Your task to perform on an android device: turn vacation reply on in the gmail app Image 0: 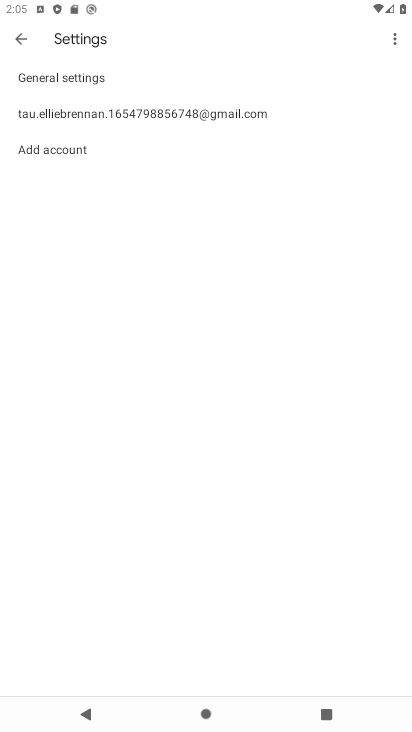
Step 0: press home button
Your task to perform on an android device: turn vacation reply on in the gmail app Image 1: 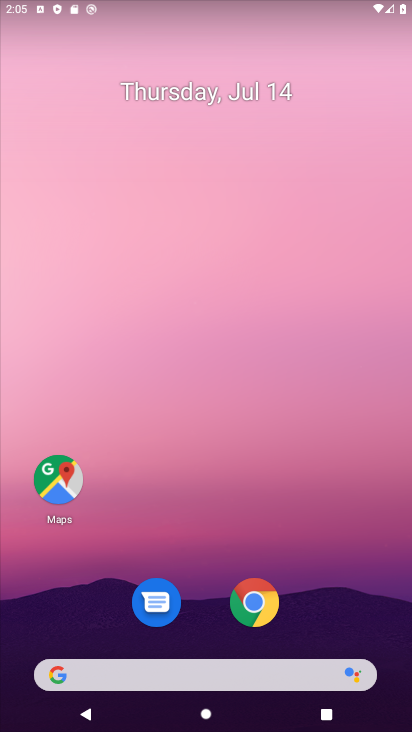
Step 1: drag from (389, 656) to (330, 159)
Your task to perform on an android device: turn vacation reply on in the gmail app Image 2: 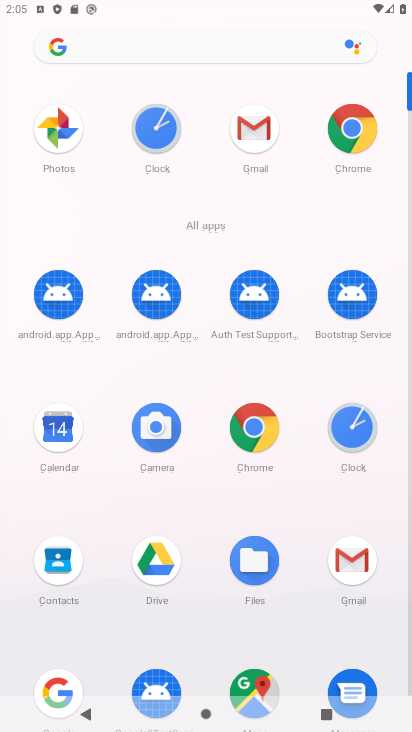
Step 2: click (350, 561)
Your task to perform on an android device: turn vacation reply on in the gmail app Image 3: 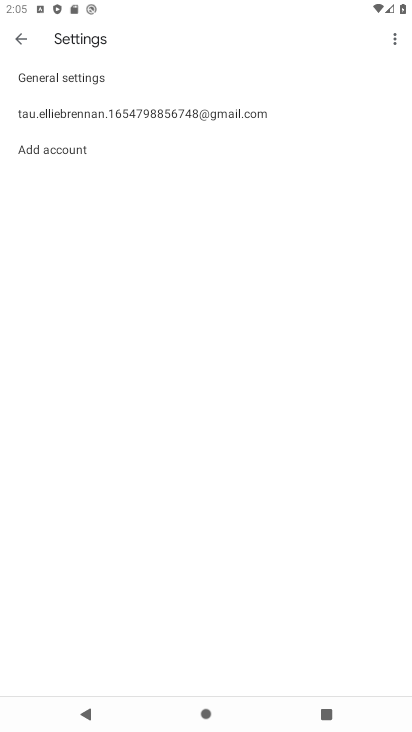
Step 3: click (103, 117)
Your task to perform on an android device: turn vacation reply on in the gmail app Image 4: 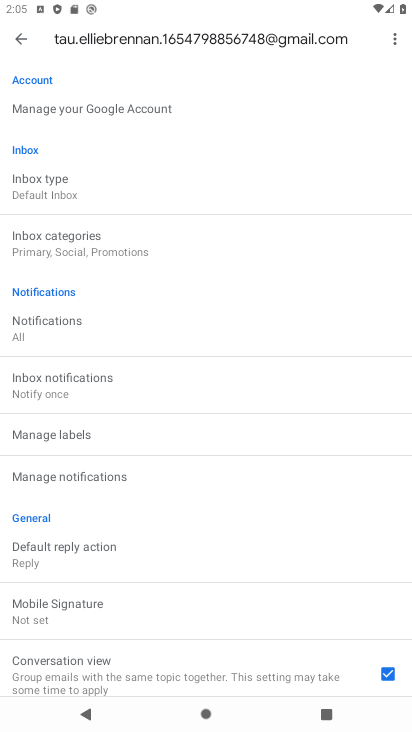
Step 4: drag from (147, 626) to (174, 270)
Your task to perform on an android device: turn vacation reply on in the gmail app Image 5: 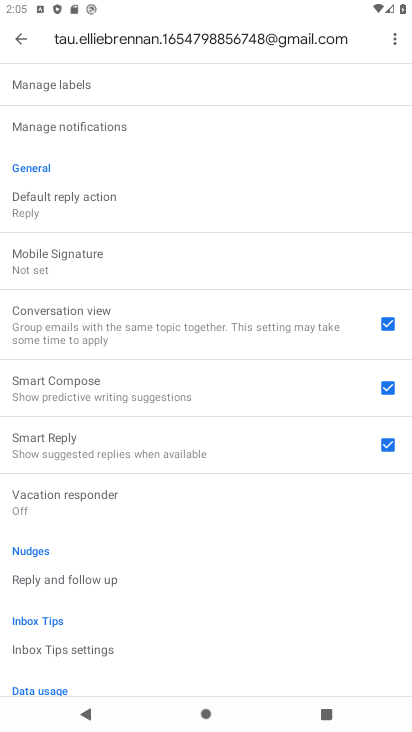
Step 5: click (51, 495)
Your task to perform on an android device: turn vacation reply on in the gmail app Image 6: 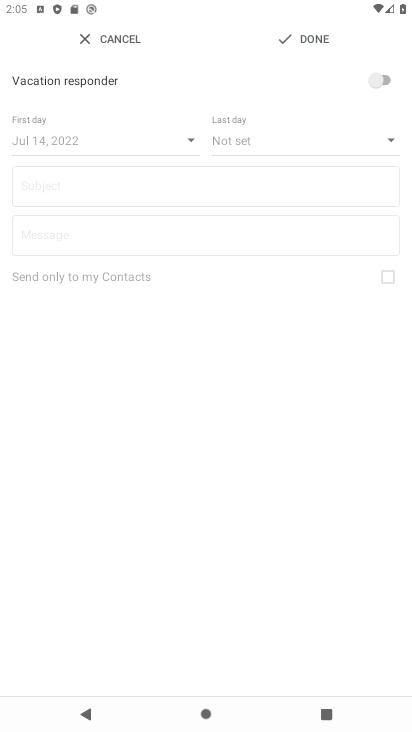
Step 6: click (385, 78)
Your task to perform on an android device: turn vacation reply on in the gmail app Image 7: 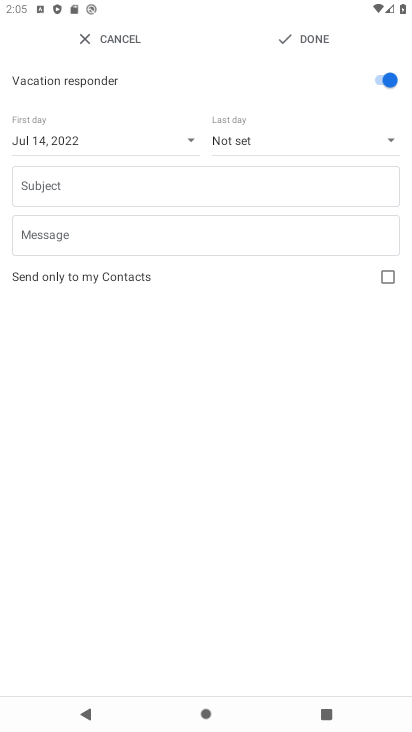
Step 7: click (317, 38)
Your task to perform on an android device: turn vacation reply on in the gmail app Image 8: 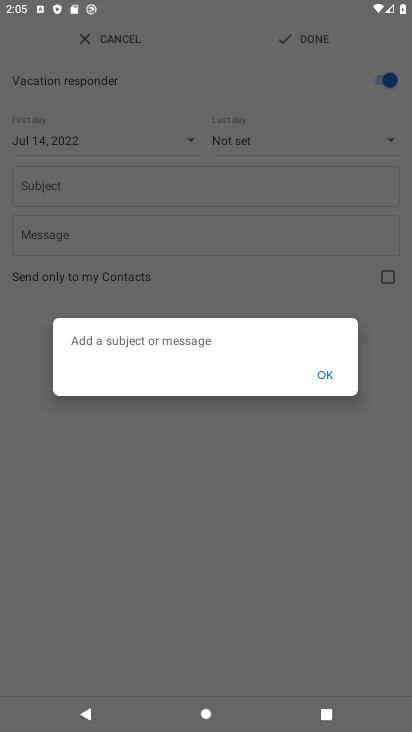
Step 8: click (327, 373)
Your task to perform on an android device: turn vacation reply on in the gmail app Image 9: 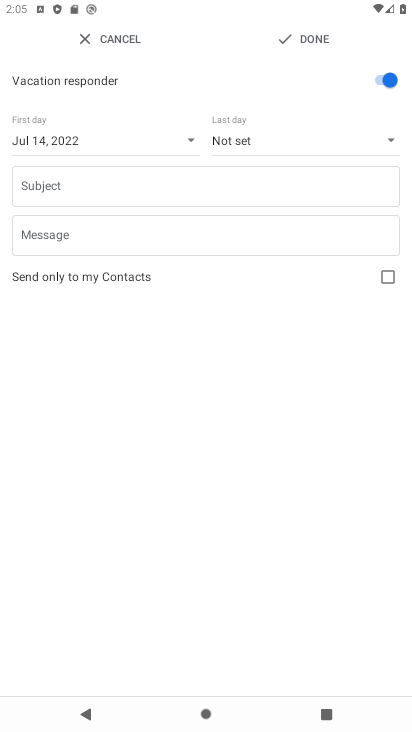
Step 9: task complete